Your task to perform on an android device: clear history in the chrome app Image 0: 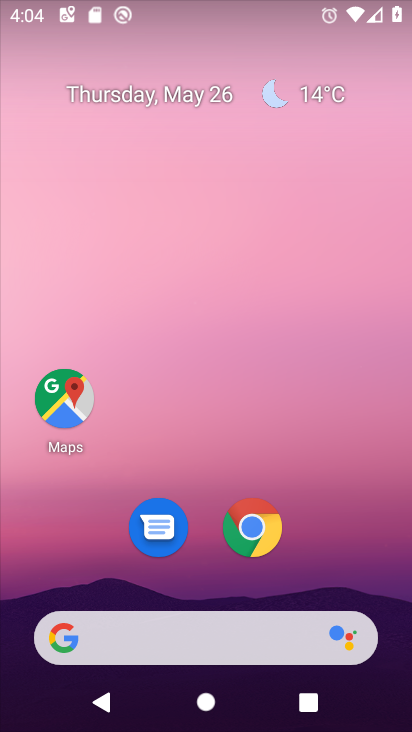
Step 0: click (267, 529)
Your task to perform on an android device: clear history in the chrome app Image 1: 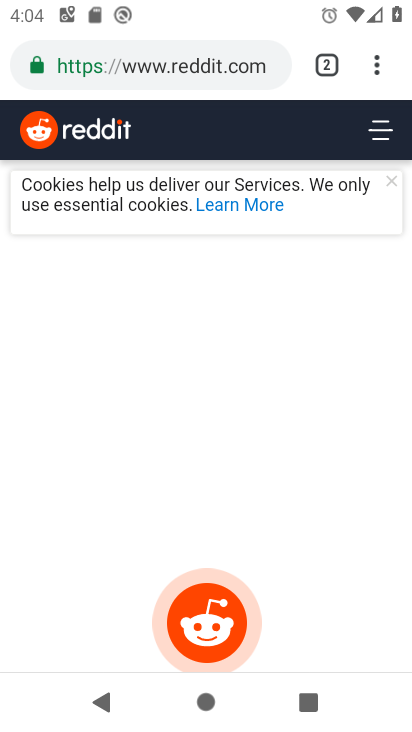
Step 1: click (367, 52)
Your task to perform on an android device: clear history in the chrome app Image 2: 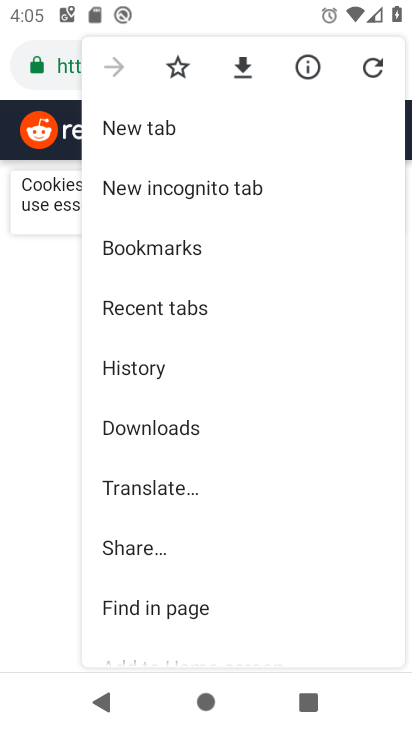
Step 2: click (263, 362)
Your task to perform on an android device: clear history in the chrome app Image 3: 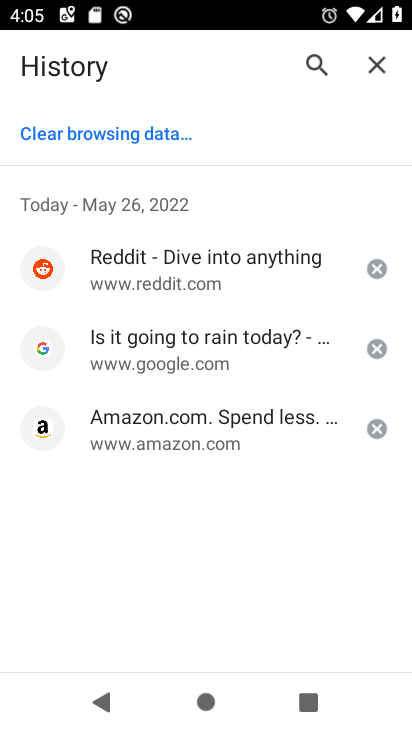
Step 3: click (126, 152)
Your task to perform on an android device: clear history in the chrome app Image 4: 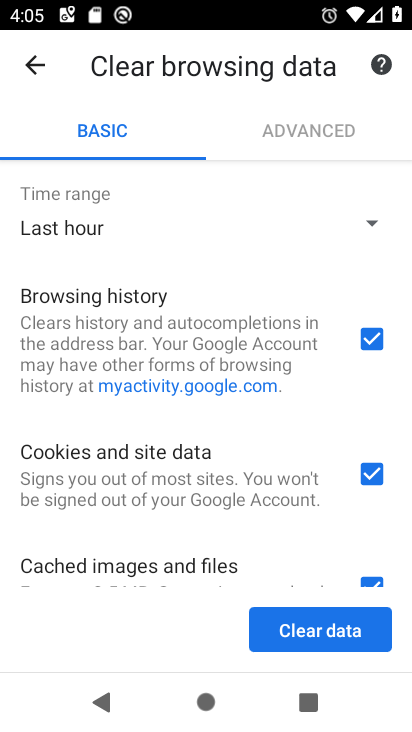
Step 4: click (372, 586)
Your task to perform on an android device: clear history in the chrome app Image 5: 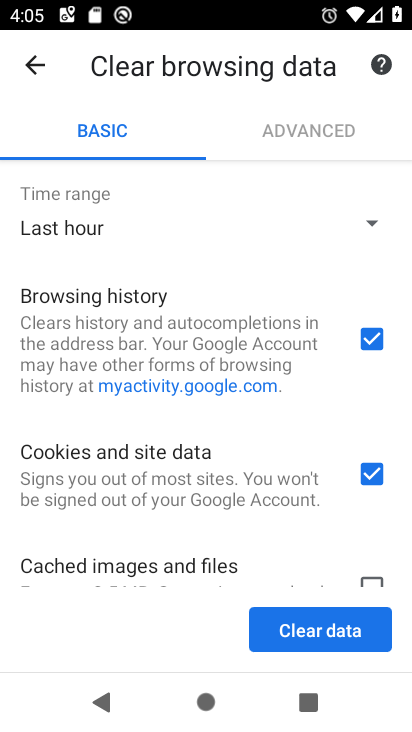
Step 5: click (370, 473)
Your task to perform on an android device: clear history in the chrome app Image 6: 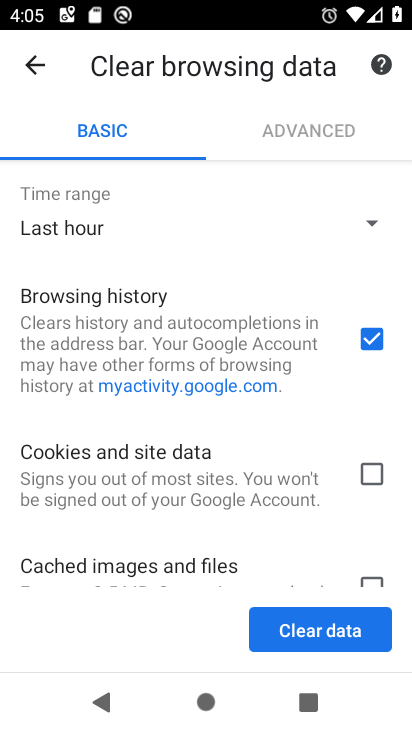
Step 6: click (348, 632)
Your task to perform on an android device: clear history in the chrome app Image 7: 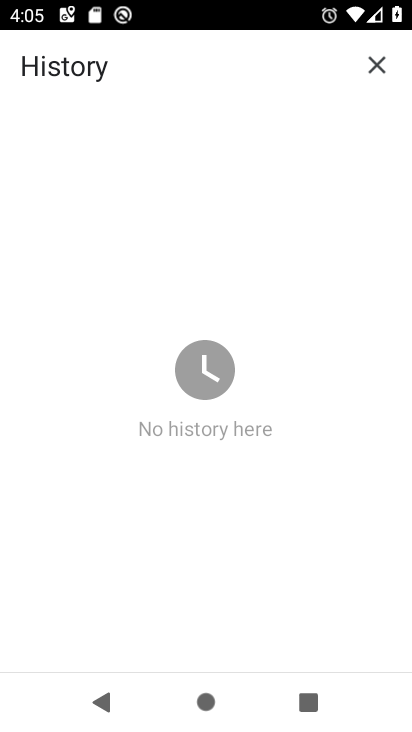
Step 7: task complete